Your task to perform on an android device: Go to calendar. Show me events next week Image 0: 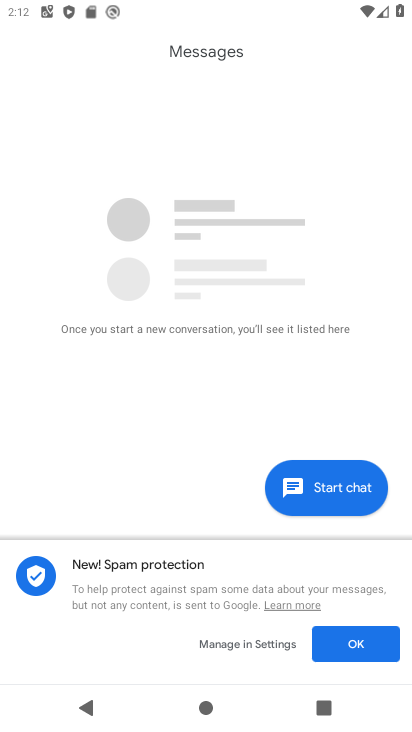
Step 0: drag from (235, 513) to (233, 189)
Your task to perform on an android device: Go to calendar. Show me events next week Image 1: 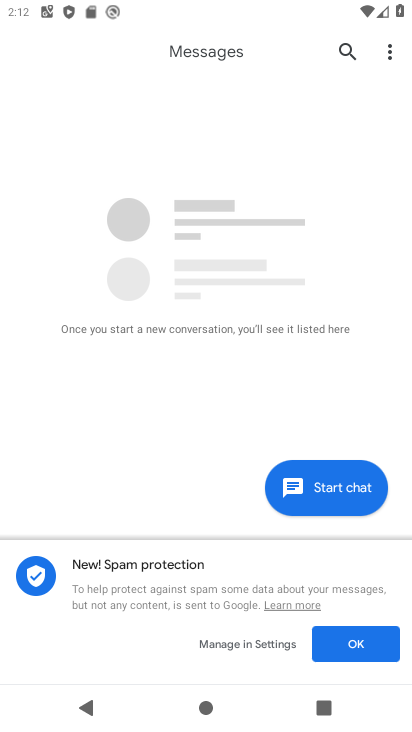
Step 1: press back button
Your task to perform on an android device: Go to calendar. Show me events next week Image 2: 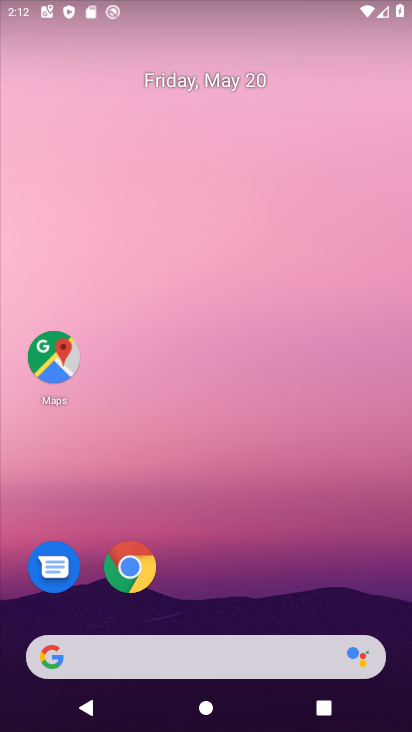
Step 2: drag from (255, 524) to (190, 31)
Your task to perform on an android device: Go to calendar. Show me events next week Image 3: 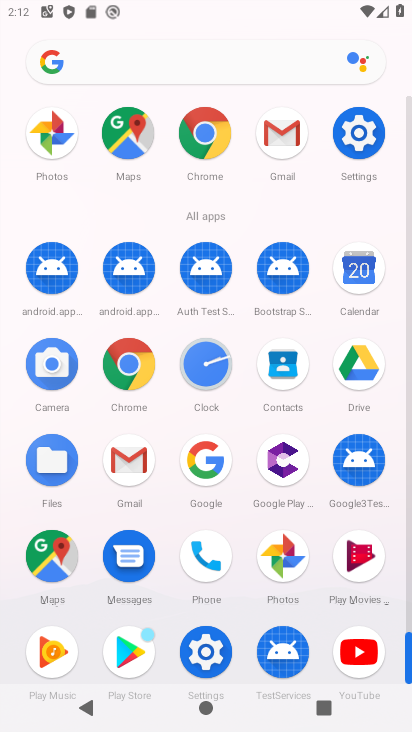
Step 3: drag from (4, 612) to (7, 362)
Your task to perform on an android device: Go to calendar. Show me events next week Image 4: 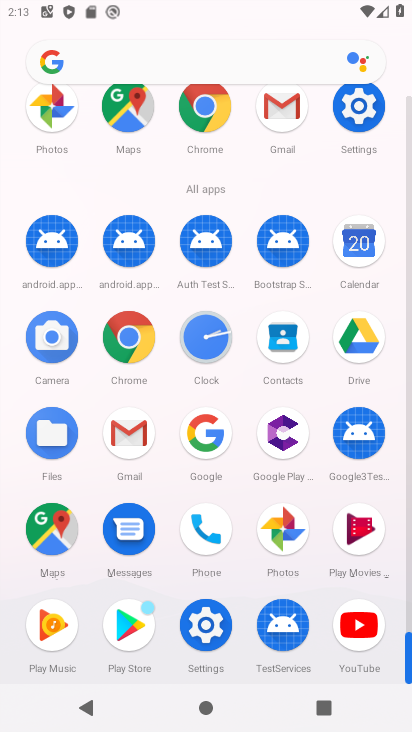
Step 4: drag from (13, 577) to (15, 250)
Your task to perform on an android device: Go to calendar. Show me events next week Image 5: 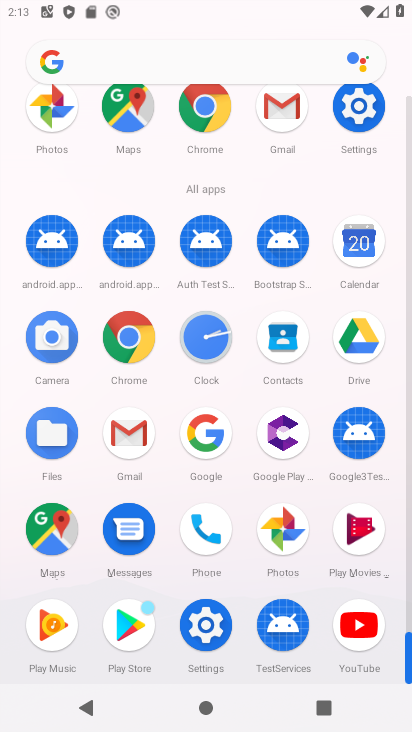
Step 5: drag from (4, 555) to (0, 250)
Your task to perform on an android device: Go to calendar. Show me events next week Image 6: 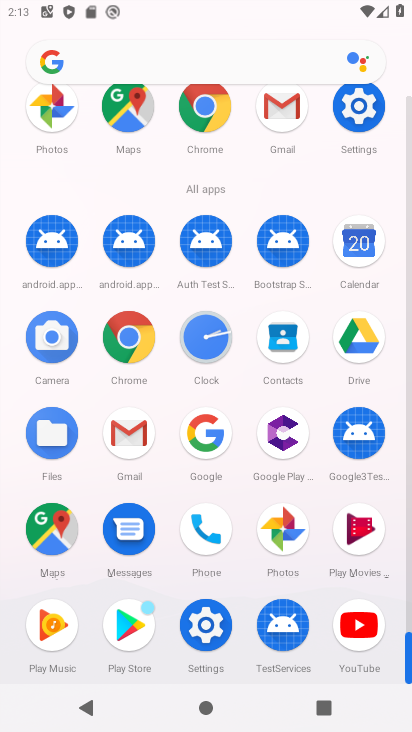
Step 6: click (352, 236)
Your task to perform on an android device: Go to calendar. Show me events next week Image 7: 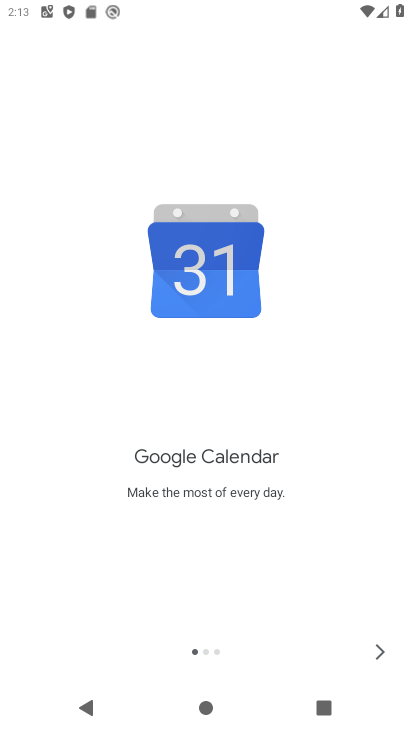
Step 7: click (376, 649)
Your task to perform on an android device: Go to calendar. Show me events next week Image 8: 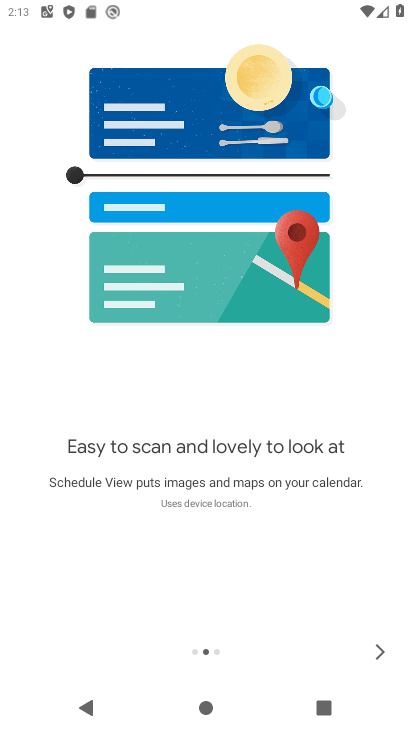
Step 8: click (380, 653)
Your task to perform on an android device: Go to calendar. Show me events next week Image 9: 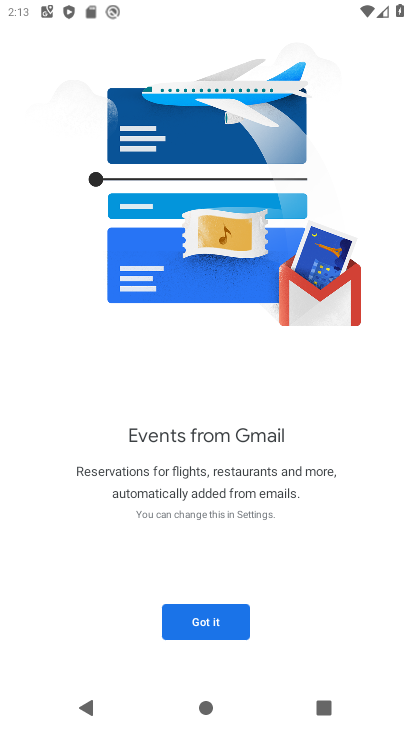
Step 9: click (223, 621)
Your task to perform on an android device: Go to calendar. Show me events next week Image 10: 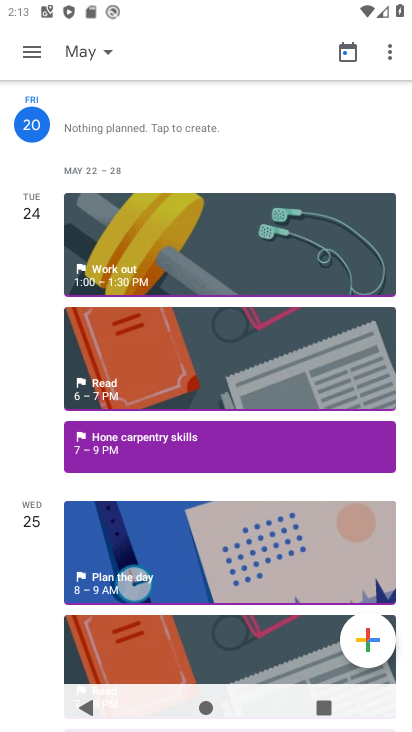
Step 10: click (44, 53)
Your task to perform on an android device: Go to calendar. Show me events next week Image 11: 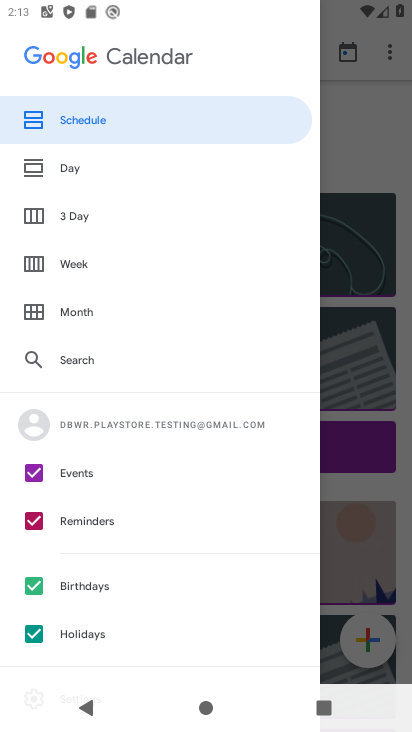
Step 11: click (99, 257)
Your task to perform on an android device: Go to calendar. Show me events next week Image 12: 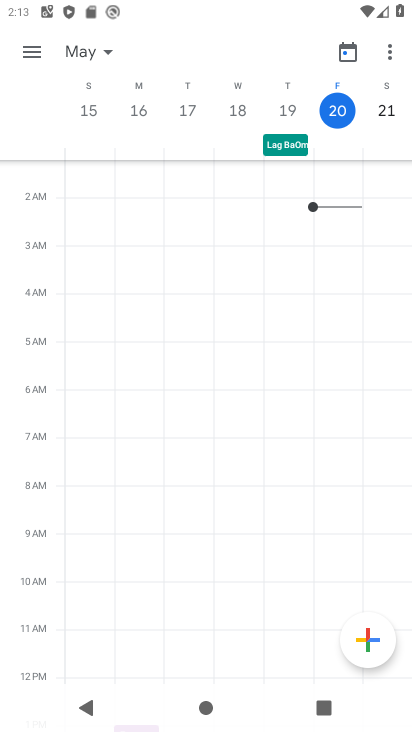
Step 12: task complete